Your task to perform on an android device: turn off translation in the chrome app Image 0: 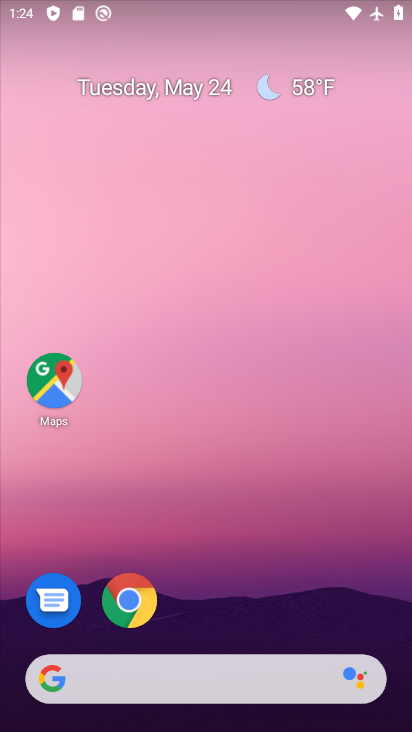
Step 0: click (143, 593)
Your task to perform on an android device: turn off translation in the chrome app Image 1: 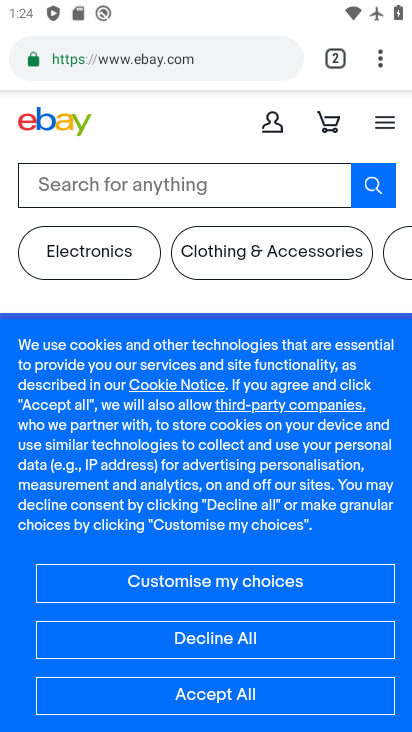
Step 1: click (382, 53)
Your task to perform on an android device: turn off translation in the chrome app Image 2: 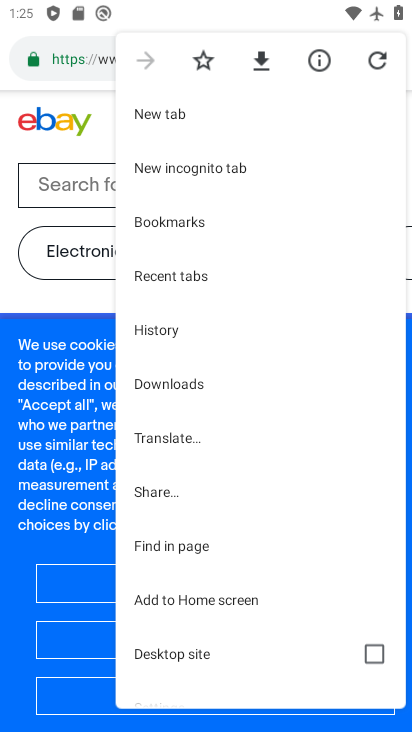
Step 2: drag from (263, 615) to (208, 164)
Your task to perform on an android device: turn off translation in the chrome app Image 3: 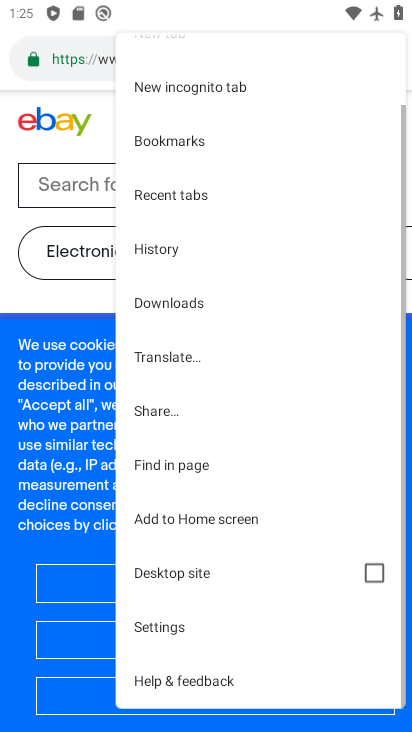
Step 3: click (198, 625)
Your task to perform on an android device: turn off translation in the chrome app Image 4: 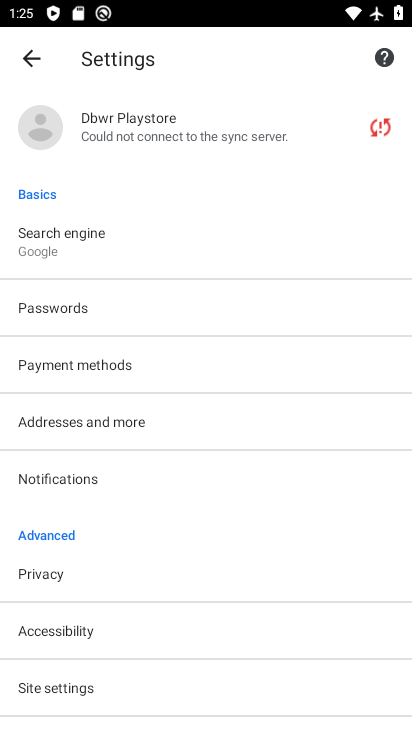
Step 4: drag from (182, 640) to (167, 405)
Your task to perform on an android device: turn off translation in the chrome app Image 5: 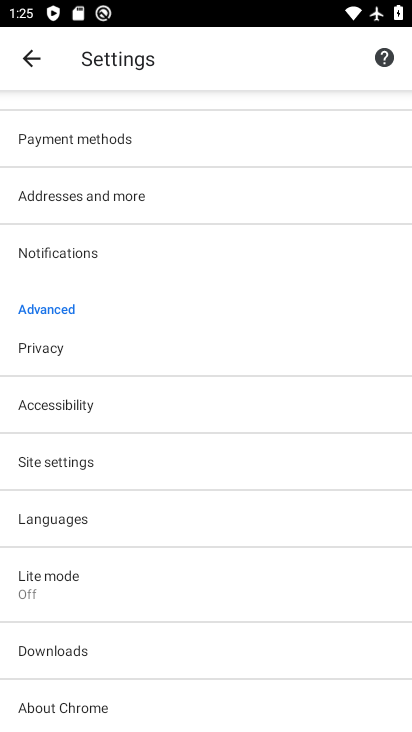
Step 5: click (148, 522)
Your task to perform on an android device: turn off translation in the chrome app Image 6: 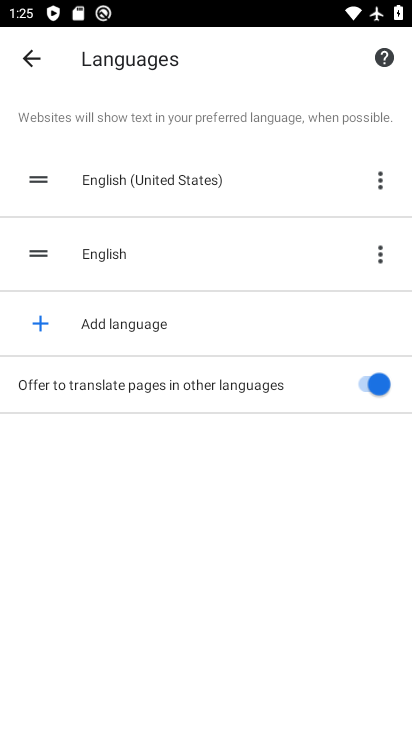
Step 6: click (374, 373)
Your task to perform on an android device: turn off translation in the chrome app Image 7: 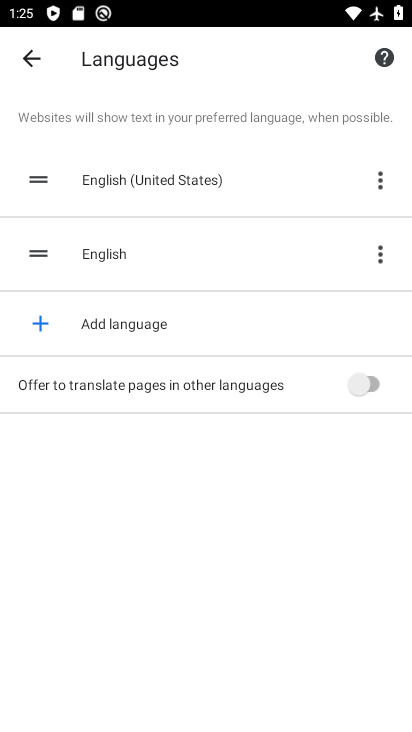
Step 7: task complete